Your task to perform on an android device: Go to Reddit.com Image 0: 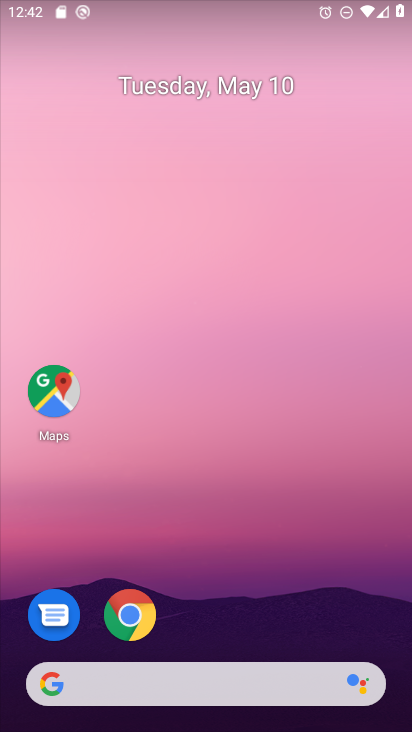
Step 0: drag from (279, 519) to (314, 205)
Your task to perform on an android device: Go to Reddit.com Image 1: 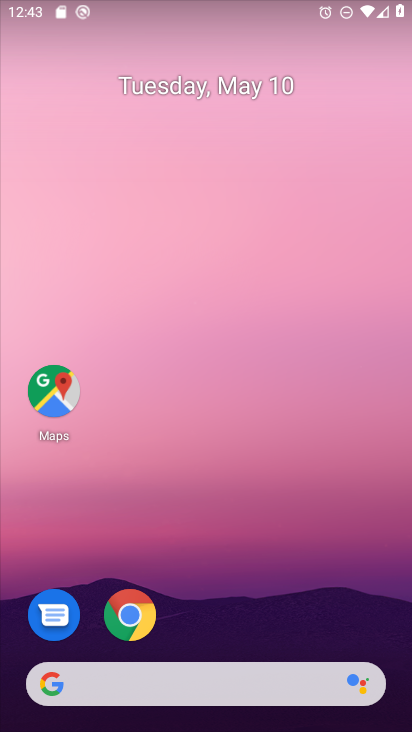
Step 1: drag from (258, 701) to (267, 171)
Your task to perform on an android device: Go to Reddit.com Image 2: 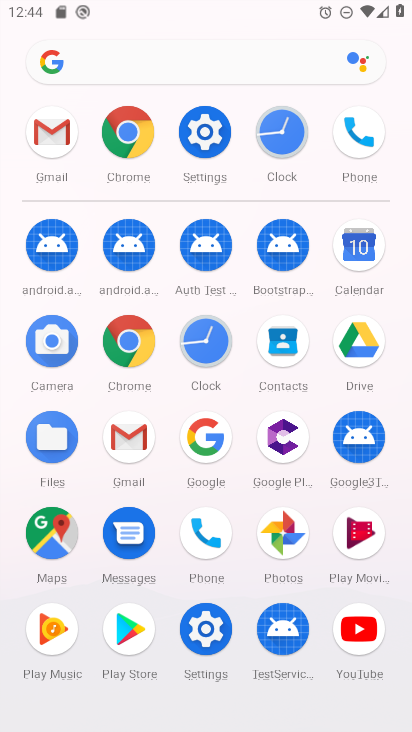
Step 2: click (113, 129)
Your task to perform on an android device: Go to Reddit.com Image 3: 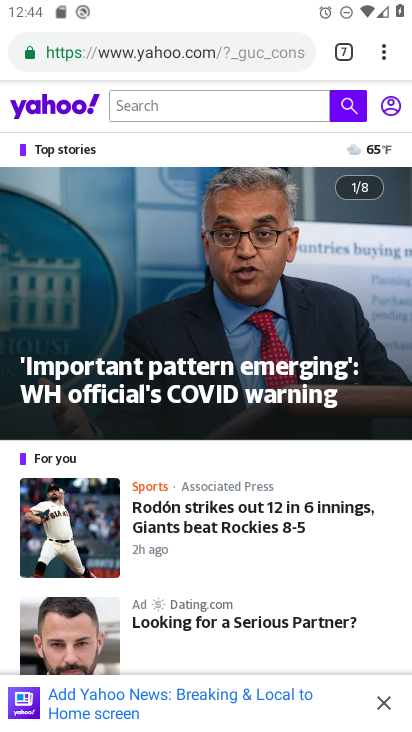
Step 3: click (125, 48)
Your task to perform on an android device: Go to Reddit.com Image 4: 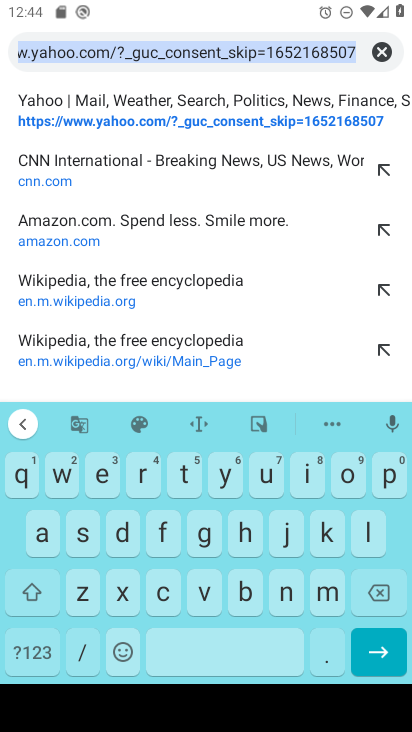
Step 4: click (378, 62)
Your task to perform on an android device: Go to Reddit.com Image 5: 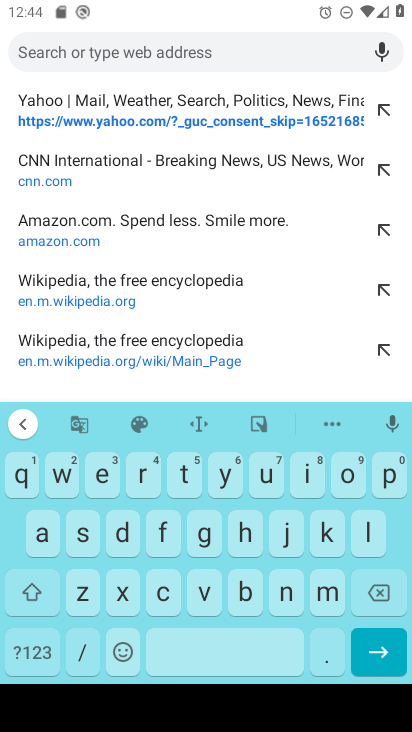
Step 5: click (143, 469)
Your task to perform on an android device: Go to Reddit.com Image 6: 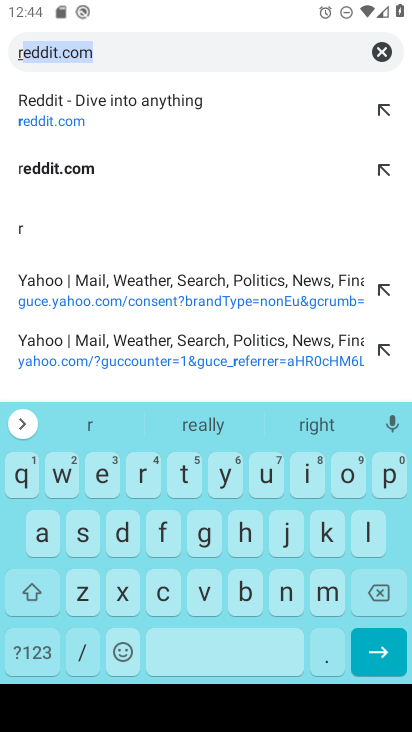
Step 6: click (106, 478)
Your task to perform on an android device: Go to Reddit.com Image 7: 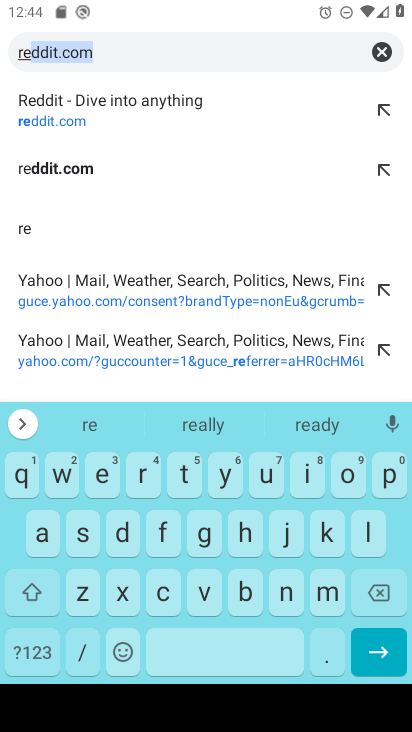
Step 7: click (132, 51)
Your task to perform on an android device: Go to Reddit.com Image 8: 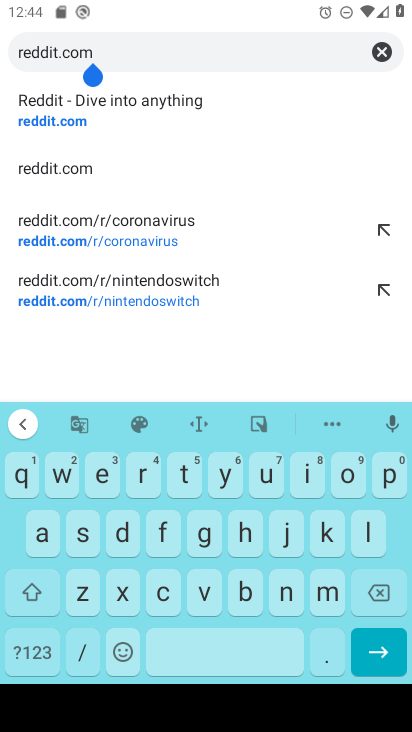
Step 8: click (378, 664)
Your task to perform on an android device: Go to Reddit.com Image 9: 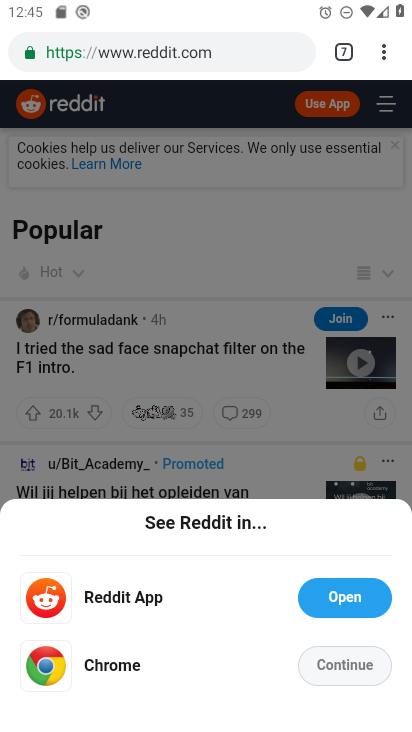
Step 9: click (181, 667)
Your task to perform on an android device: Go to Reddit.com Image 10: 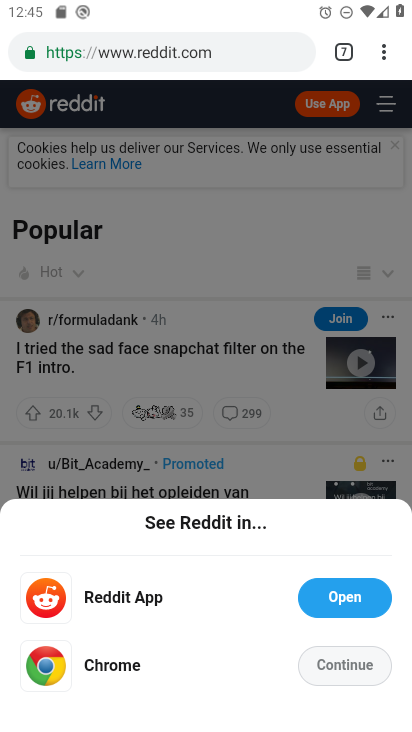
Step 10: click (327, 660)
Your task to perform on an android device: Go to Reddit.com Image 11: 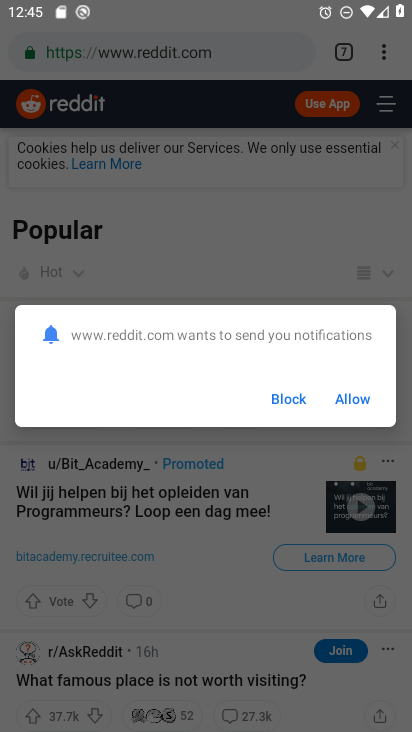
Step 11: click (290, 402)
Your task to perform on an android device: Go to Reddit.com Image 12: 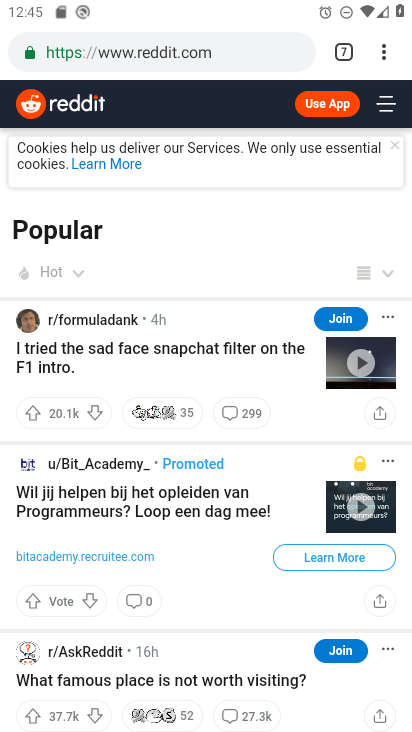
Step 12: task complete